Your task to perform on an android device: set an alarm Image 0: 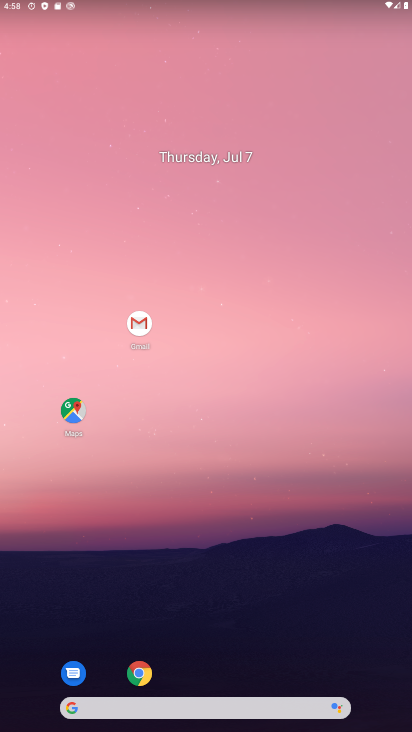
Step 0: drag from (251, 645) to (286, 128)
Your task to perform on an android device: set an alarm Image 1: 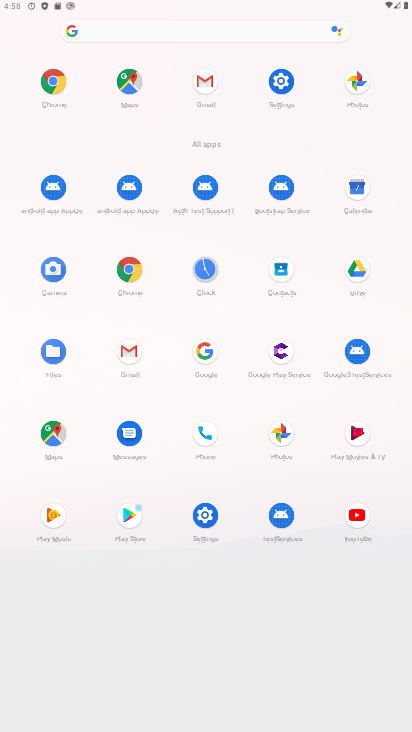
Step 1: click (208, 267)
Your task to perform on an android device: set an alarm Image 2: 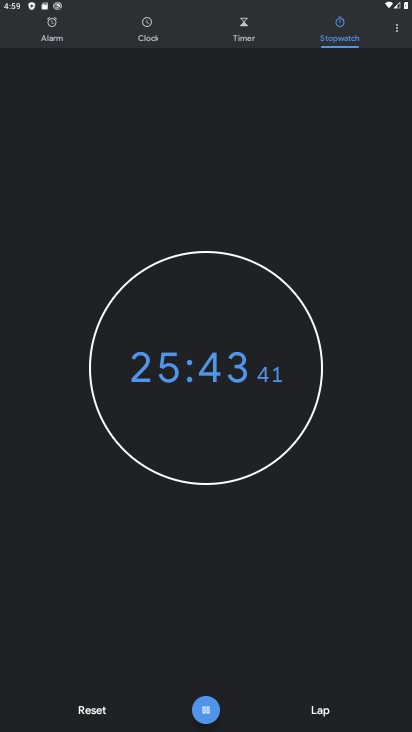
Step 2: click (56, 48)
Your task to perform on an android device: set an alarm Image 3: 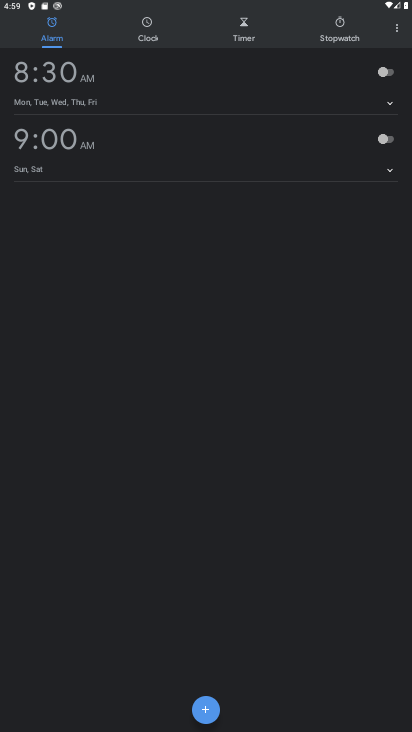
Step 3: click (391, 71)
Your task to perform on an android device: set an alarm Image 4: 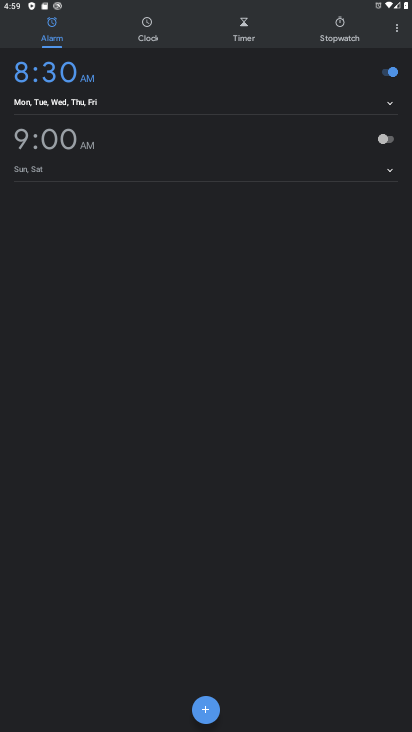
Step 4: task complete